Your task to perform on an android device: Go to Google Image 0: 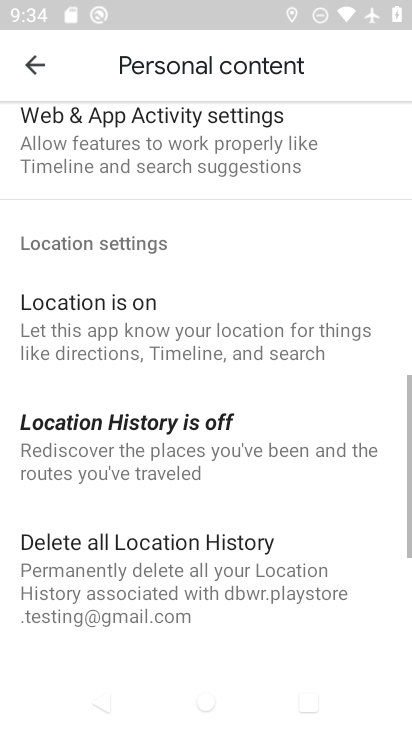
Step 0: press home button
Your task to perform on an android device: Go to Google Image 1: 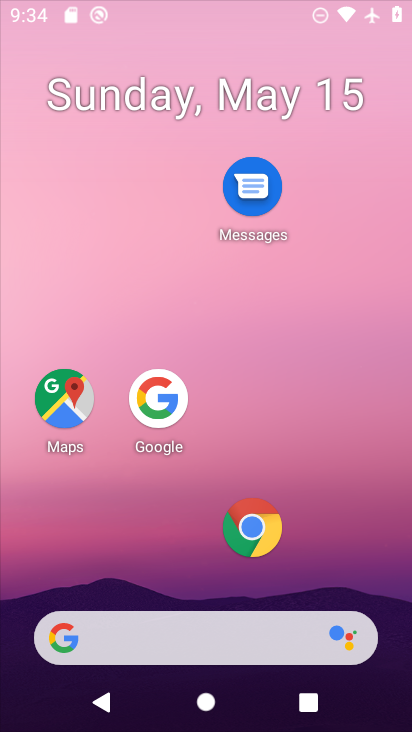
Step 1: press home button
Your task to perform on an android device: Go to Google Image 2: 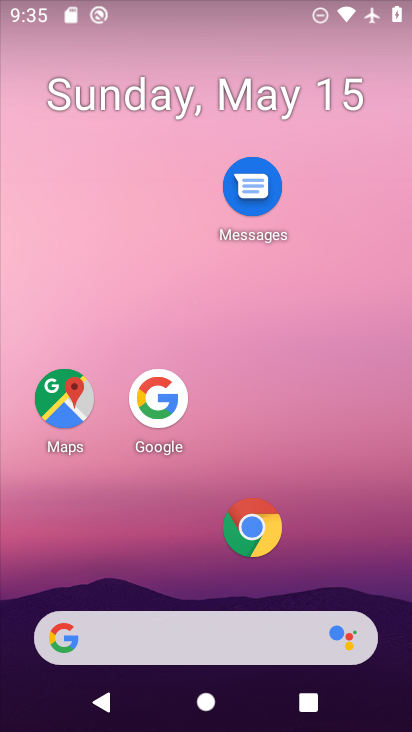
Step 2: click (169, 401)
Your task to perform on an android device: Go to Google Image 3: 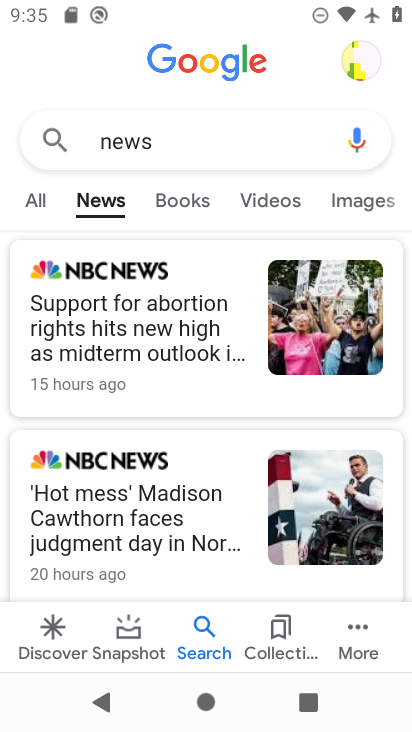
Step 3: task complete